Your task to perform on an android device: Do I have any events today? Image 0: 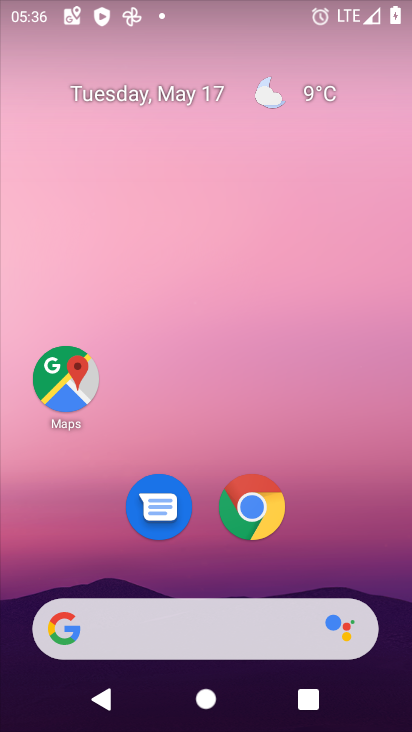
Step 0: click (144, 97)
Your task to perform on an android device: Do I have any events today? Image 1: 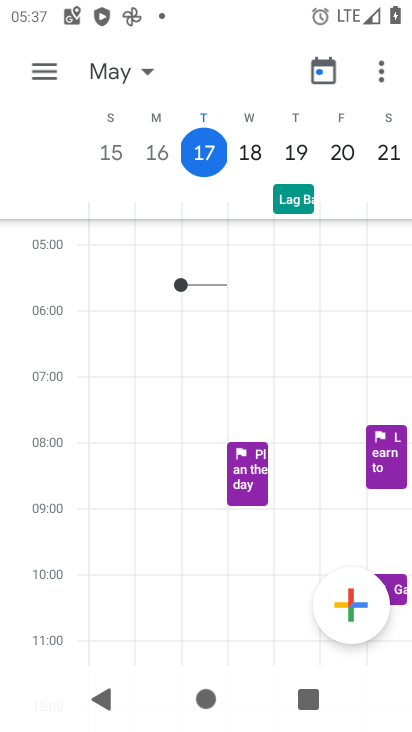
Step 1: task complete